Your task to perform on an android device: uninstall "Pluto TV - Live TV and Movies" Image 0: 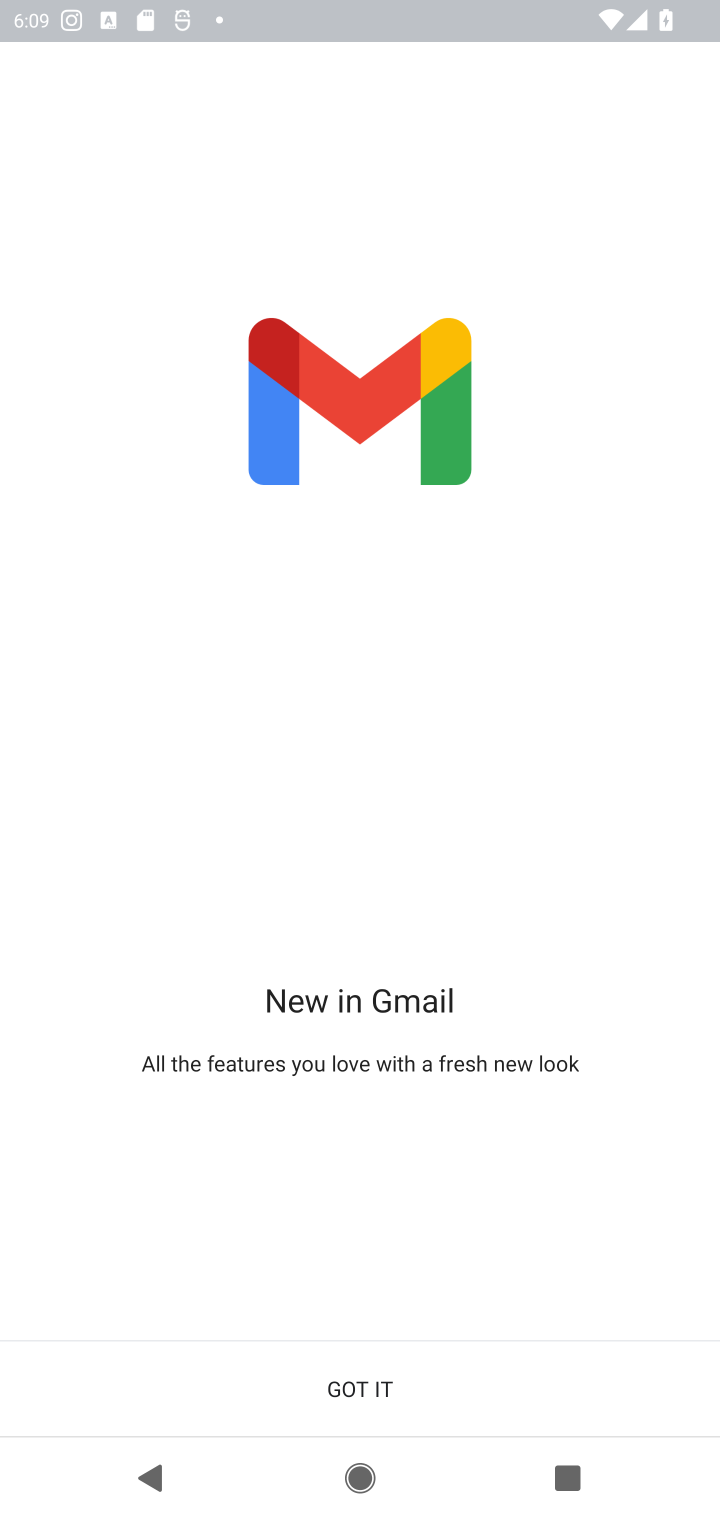
Step 0: press home button
Your task to perform on an android device: uninstall "Pluto TV - Live TV and Movies" Image 1: 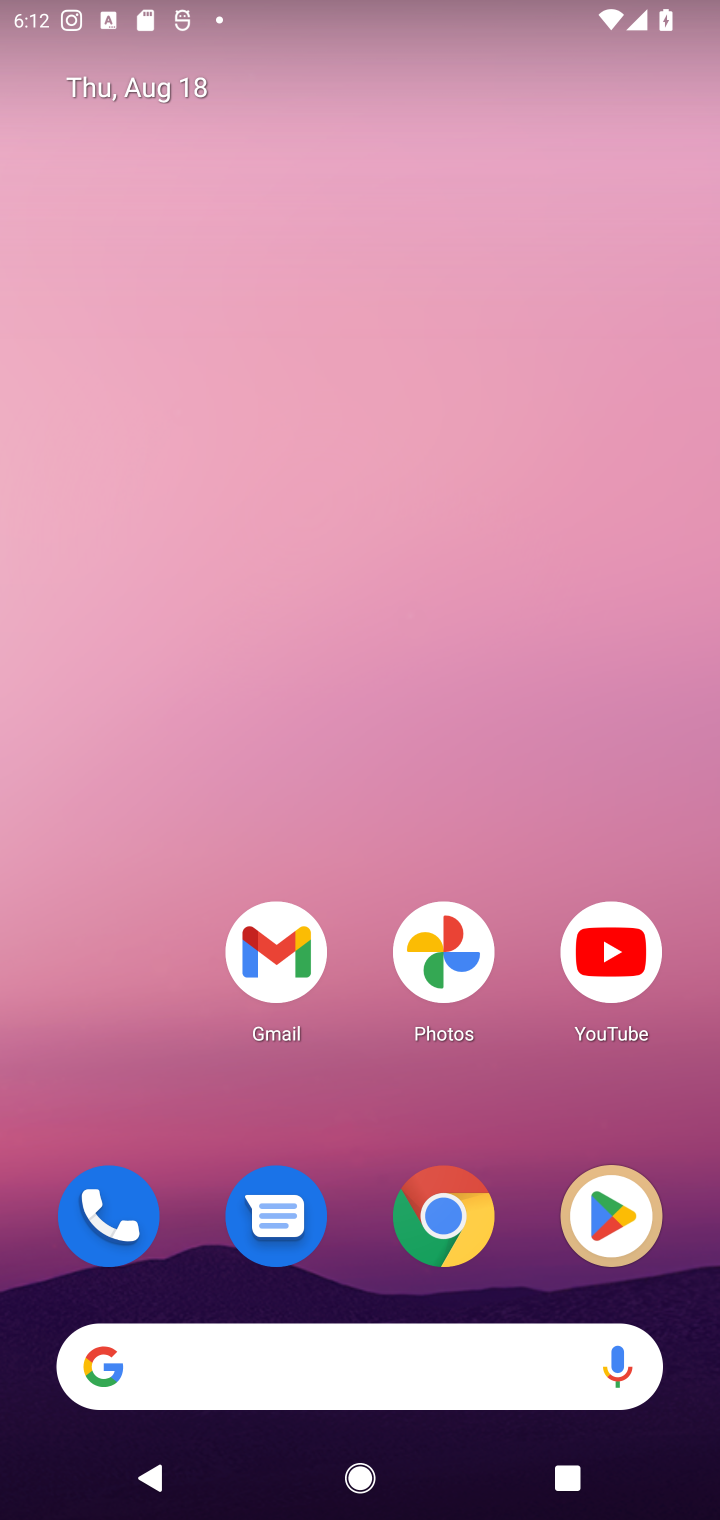
Step 1: click (621, 1203)
Your task to perform on an android device: uninstall "Pluto TV - Live TV and Movies" Image 2: 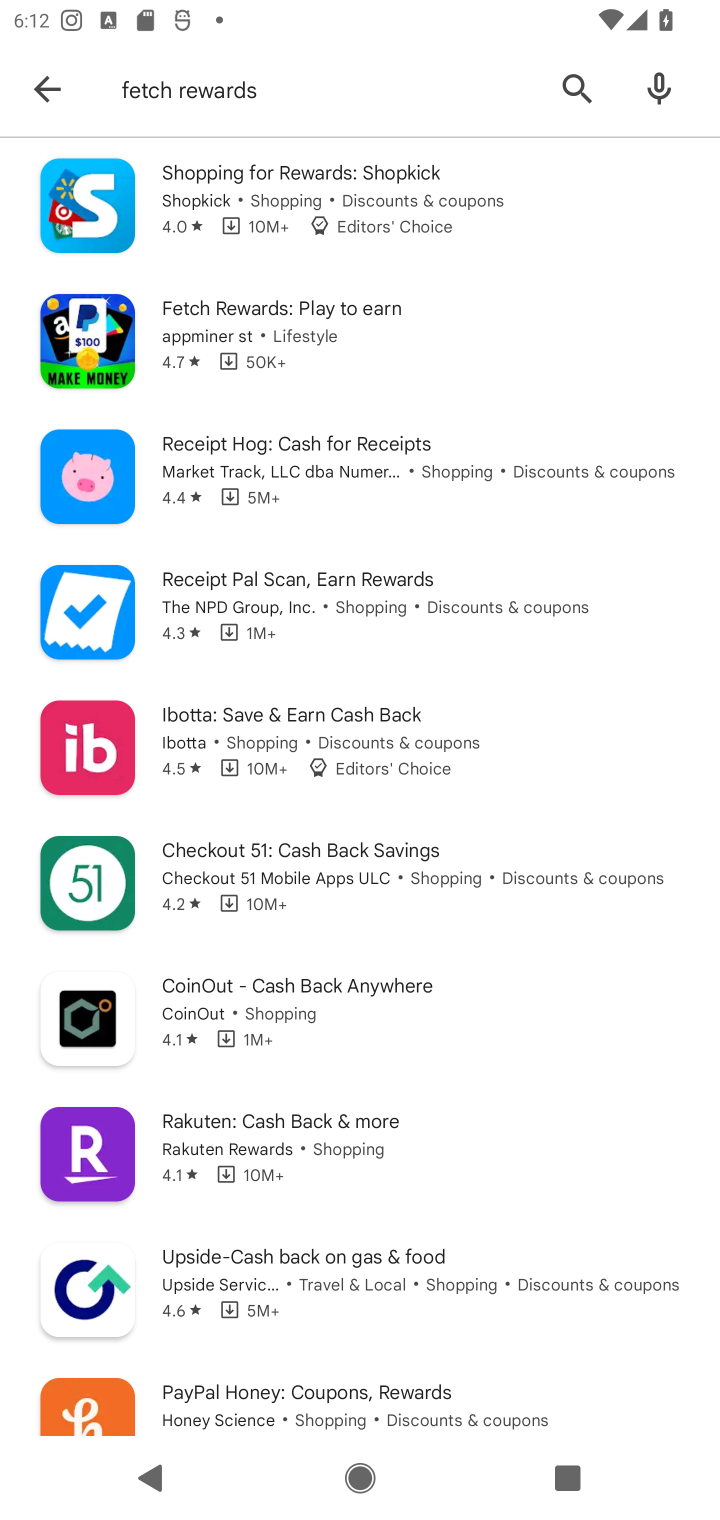
Step 2: click (562, 79)
Your task to perform on an android device: uninstall "Pluto TV - Live TV and Movies" Image 3: 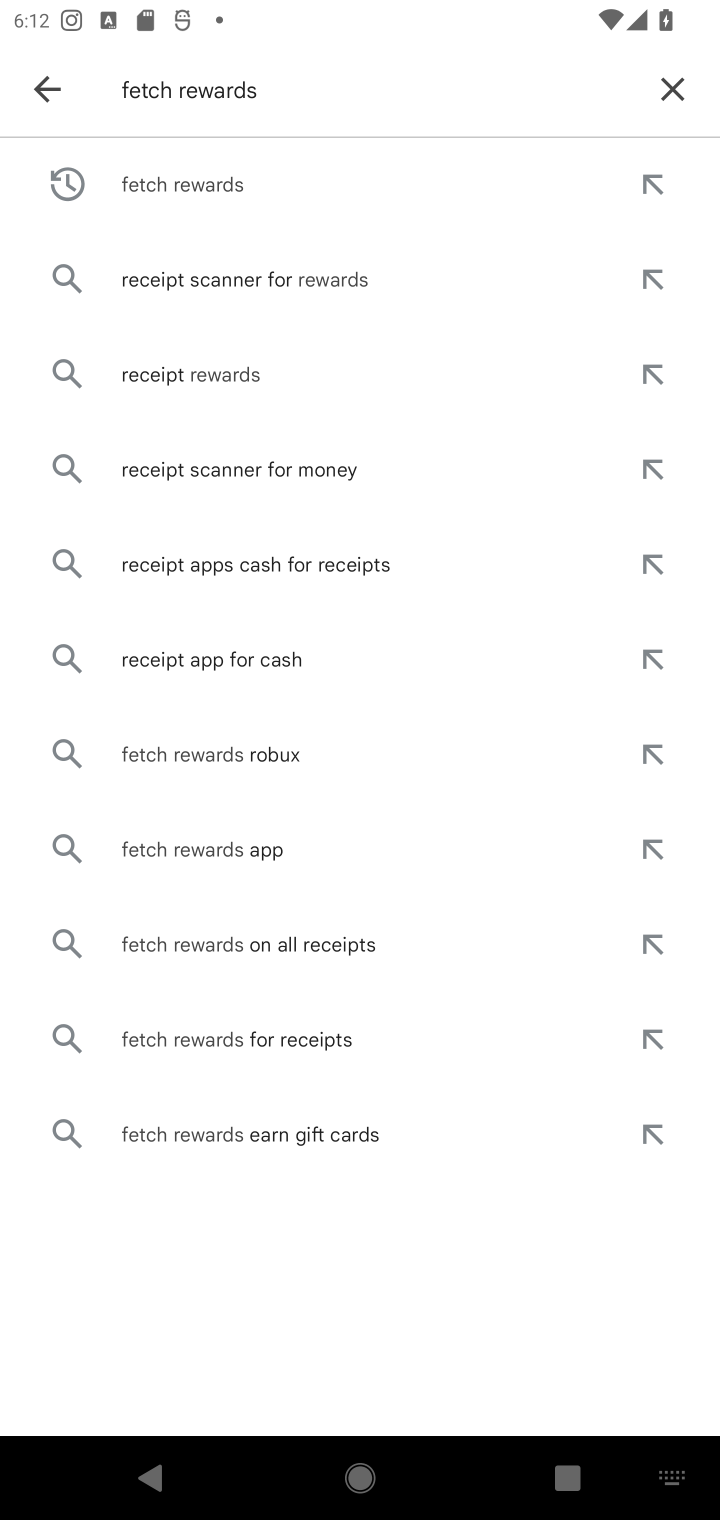
Step 3: click (663, 87)
Your task to perform on an android device: uninstall "Pluto TV - Live TV and Movies" Image 4: 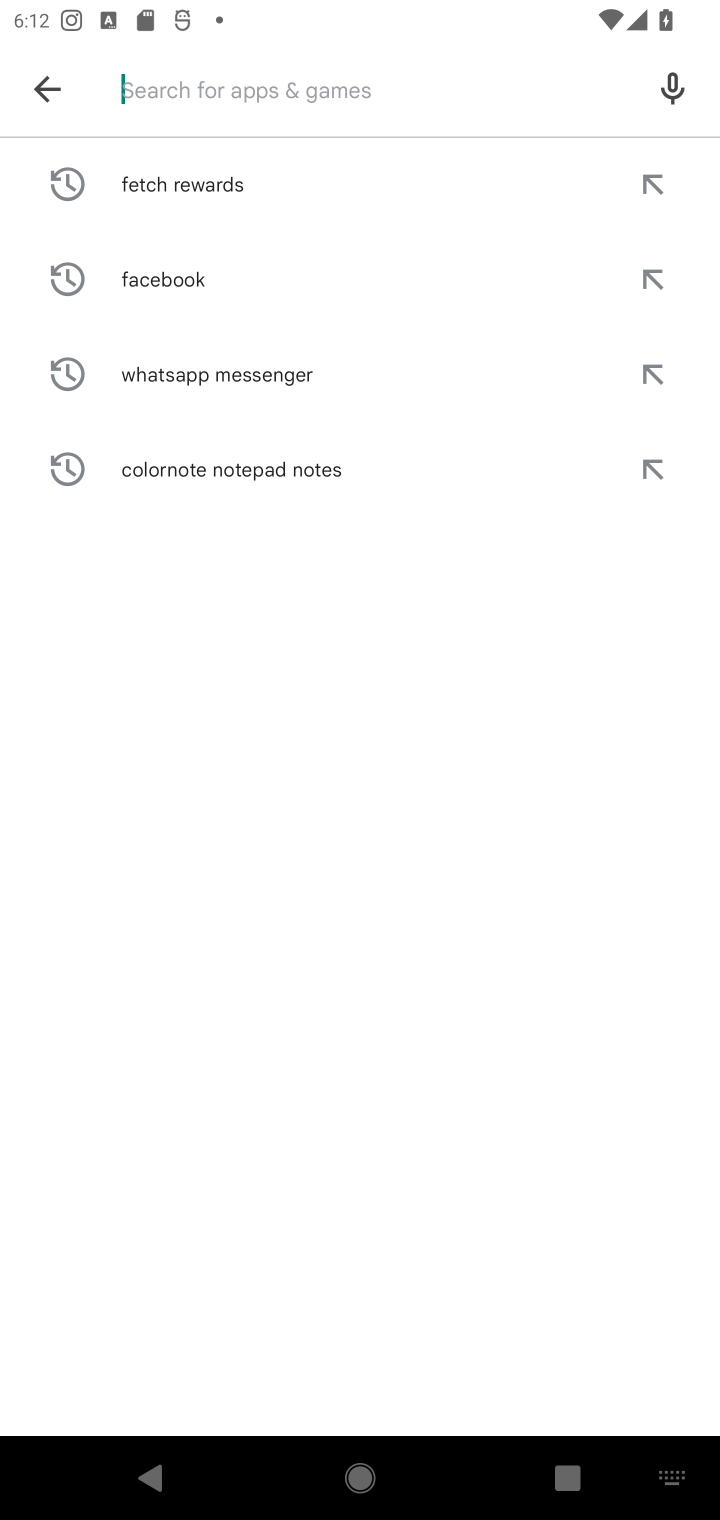
Step 4: type "Pluto TV - Live TV and Movies"
Your task to perform on an android device: uninstall "Pluto TV - Live TV and Movies" Image 5: 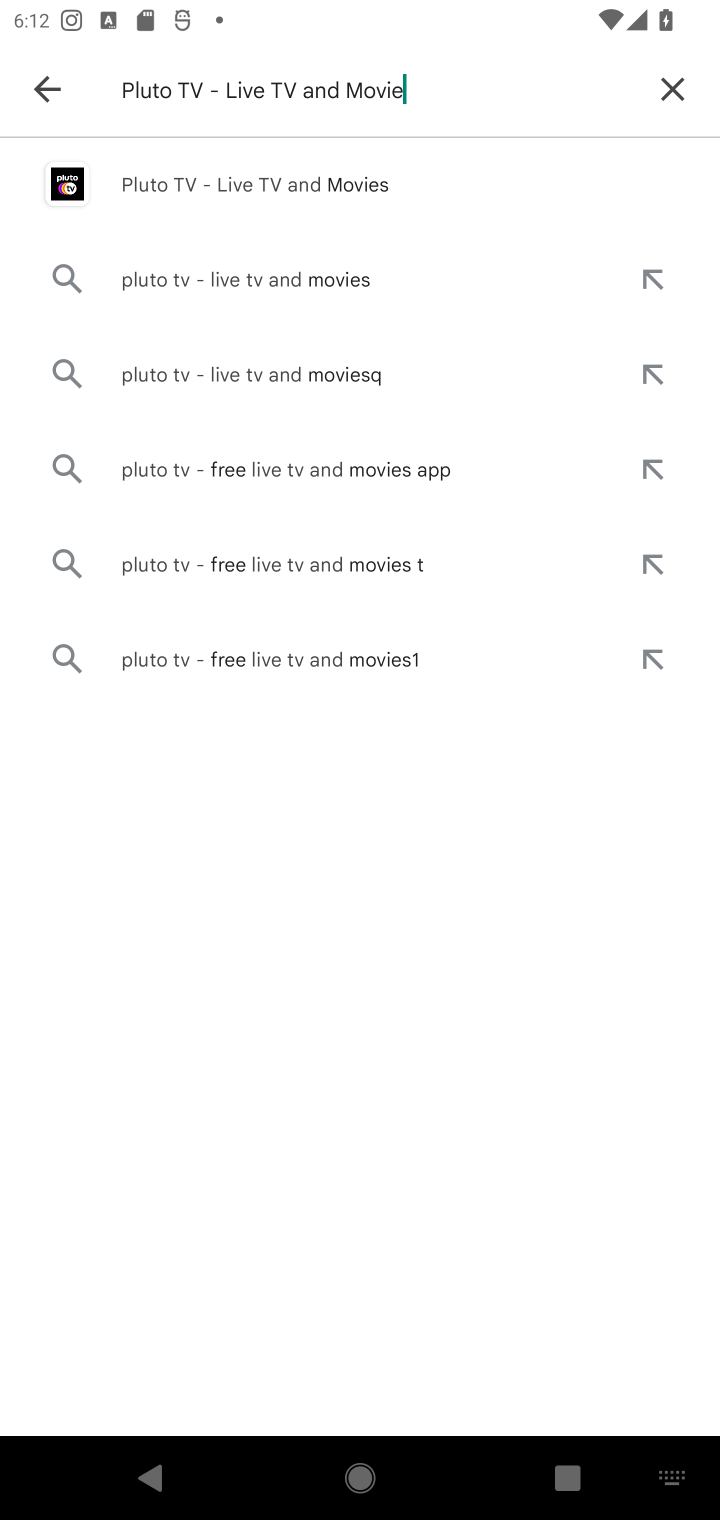
Step 5: type ""
Your task to perform on an android device: uninstall "Pluto TV - Live TV and Movies" Image 6: 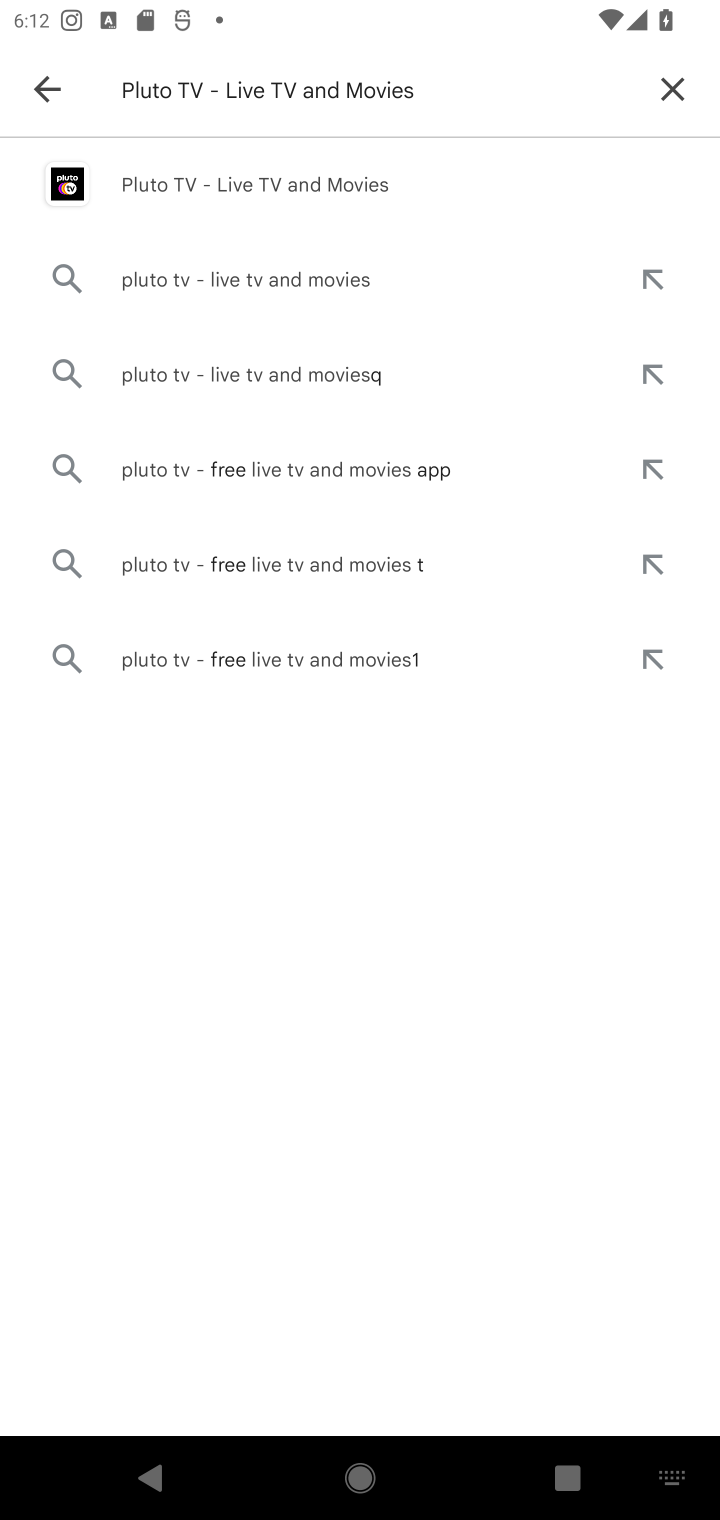
Step 6: click (410, 185)
Your task to perform on an android device: uninstall "Pluto TV - Live TV and Movies" Image 7: 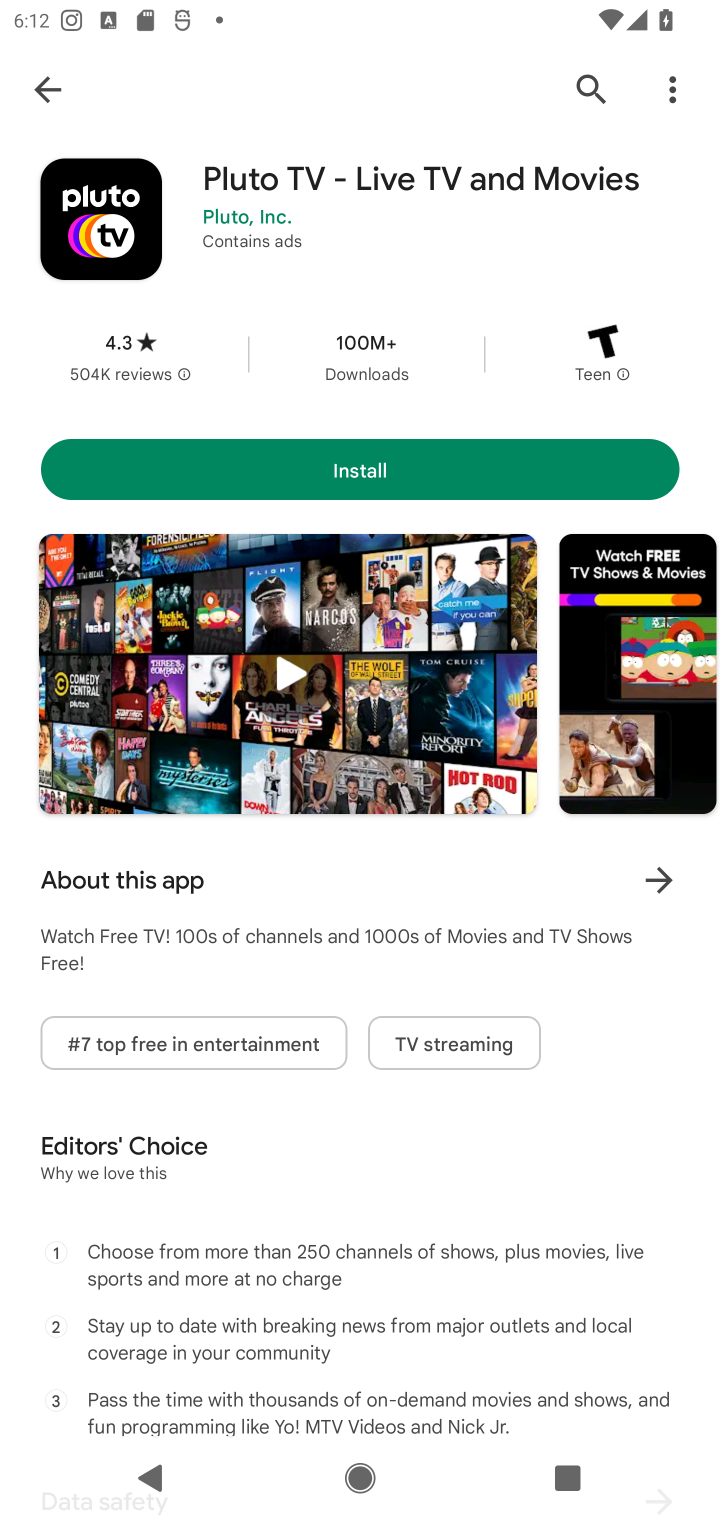
Step 7: task complete